Your task to perform on an android device: visit the assistant section in the google photos Image 0: 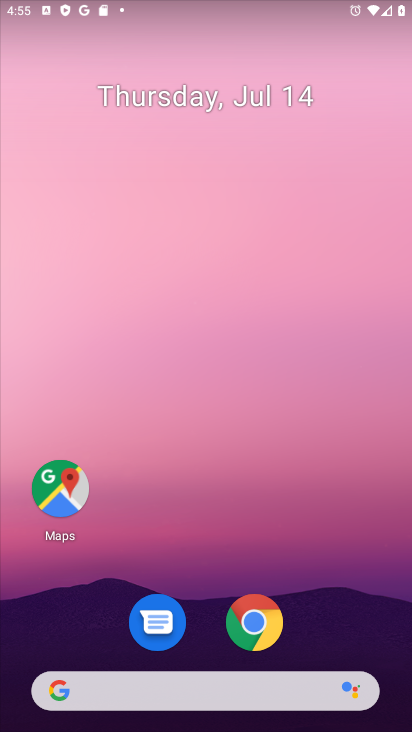
Step 0: drag from (209, 658) to (277, 23)
Your task to perform on an android device: visit the assistant section in the google photos Image 1: 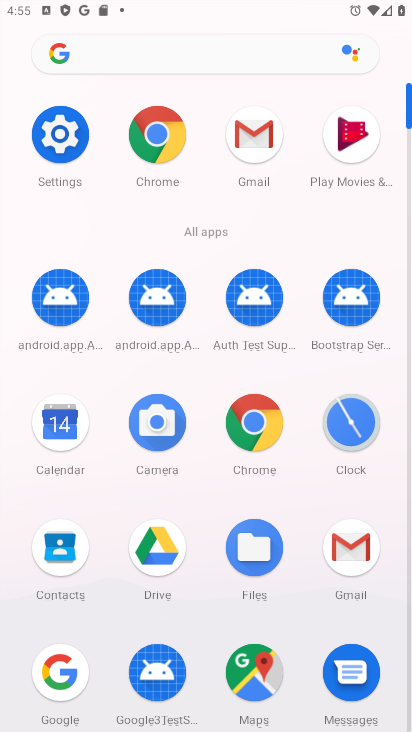
Step 1: drag from (206, 613) to (225, 116)
Your task to perform on an android device: visit the assistant section in the google photos Image 2: 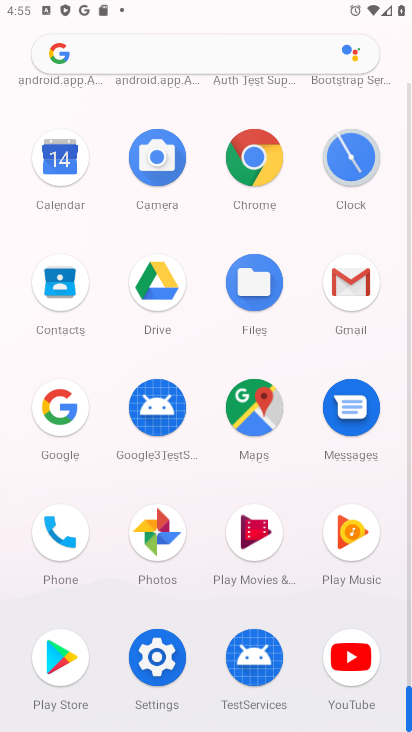
Step 2: click (163, 580)
Your task to perform on an android device: visit the assistant section in the google photos Image 3: 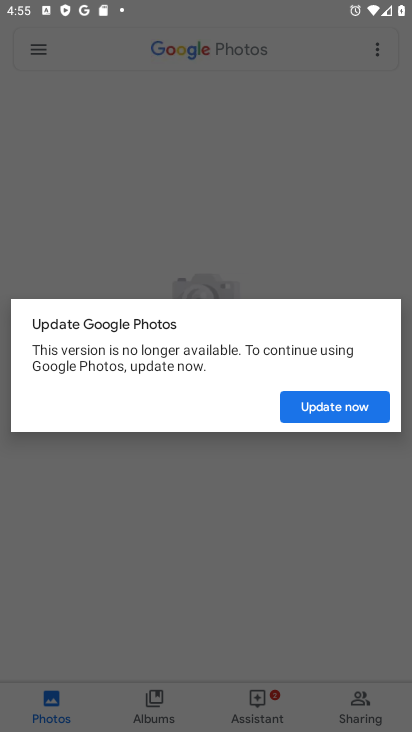
Step 3: click (343, 409)
Your task to perform on an android device: visit the assistant section in the google photos Image 4: 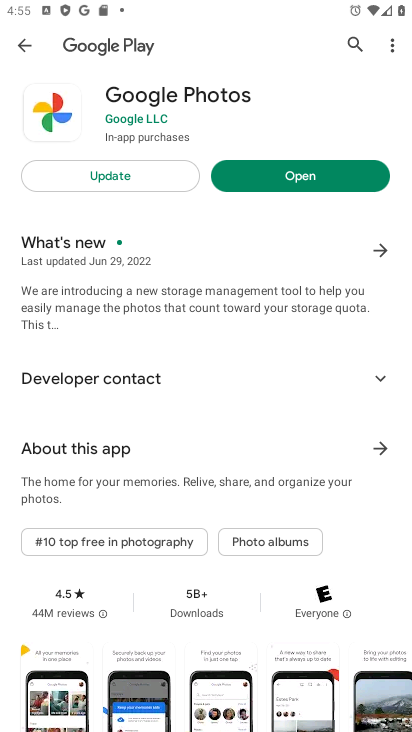
Step 4: click (296, 164)
Your task to perform on an android device: visit the assistant section in the google photos Image 5: 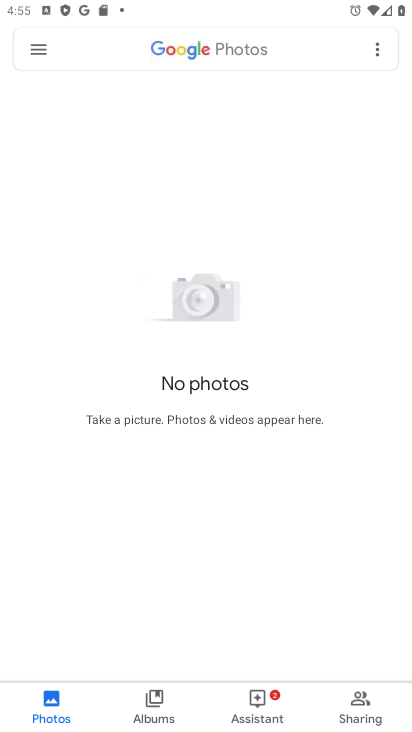
Step 5: click (265, 716)
Your task to perform on an android device: visit the assistant section in the google photos Image 6: 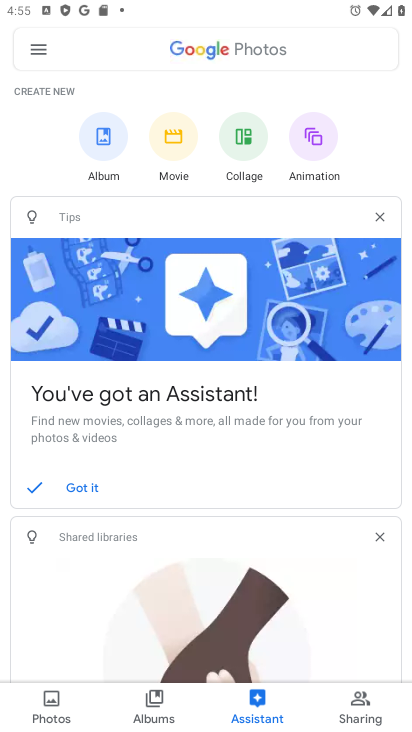
Step 6: task complete